Your task to perform on an android device: turn on javascript in the chrome app Image 0: 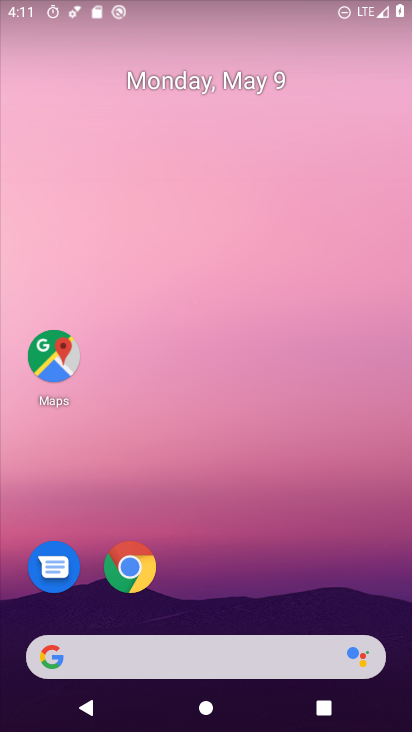
Step 0: drag from (203, 529) to (135, 100)
Your task to perform on an android device: turn on javascript in the chrome app Image 1: 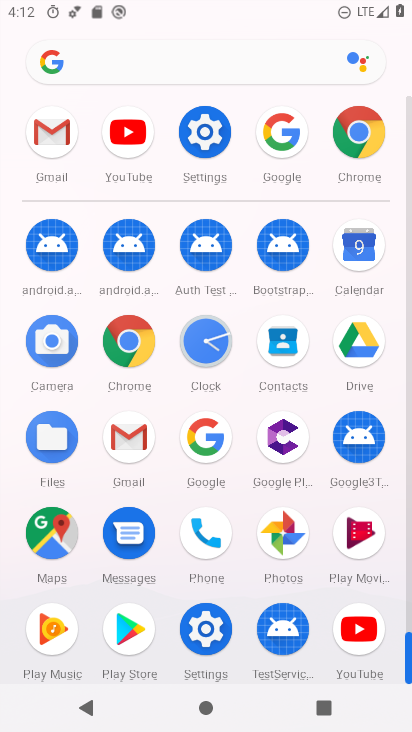
Step 1: click (363, 139)
Your task to perform on an android device: turn on javascript in the chrome app Image 2: 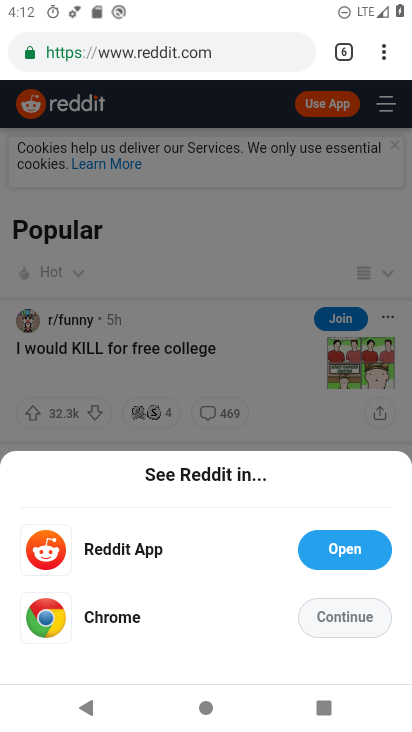
Step 2: click (385, 50)
Your task to perform on an android device: turn on javascript in the chrome app Image 3: 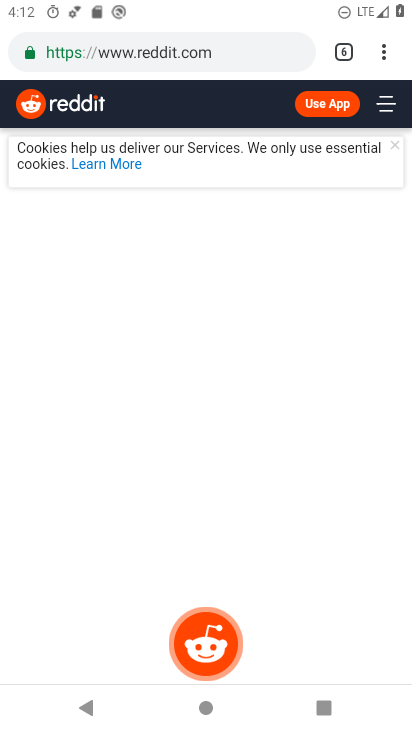
Step 3: click (383, 49)
Your task to perform on an android device: turn on javascript in the chrome app Image 4: 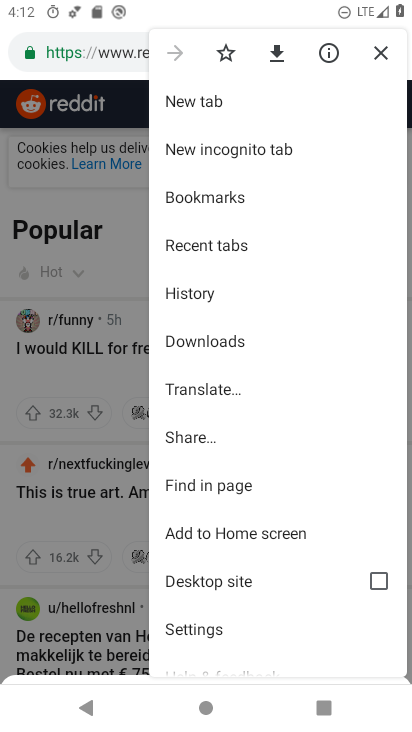
Step 4: click (214, 624)
Your task to perform on an android device: turn on javascript in the chrome app Image 5: 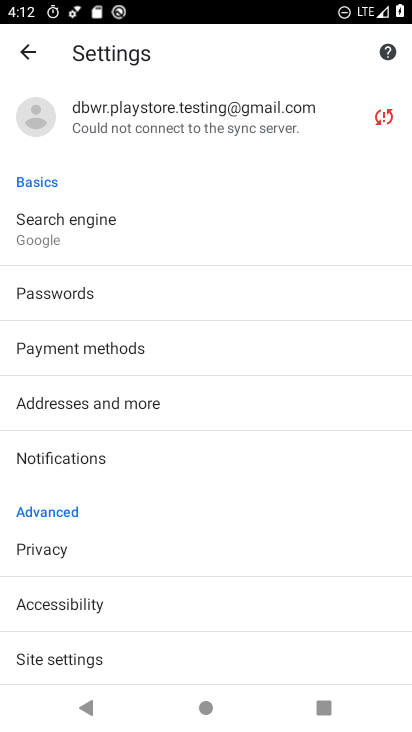
Step 5: click (76, 658)
Your task to perform on an android device: turn on javascript in the chrome app Image 6: 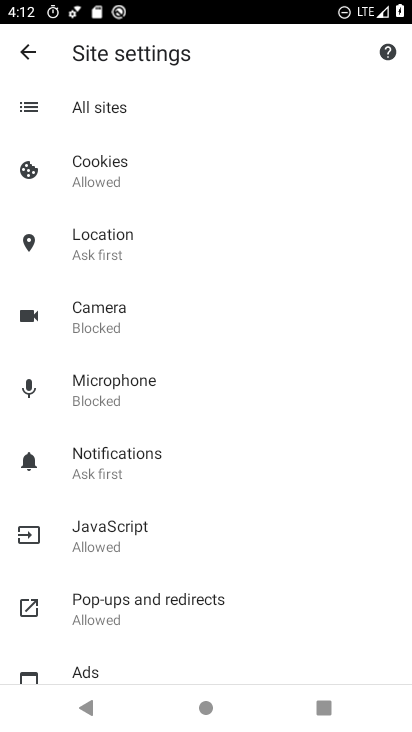
Step 6: click (109, 527)
Your task to perform on an android device: turn on javascript in the chrome app Image 7: 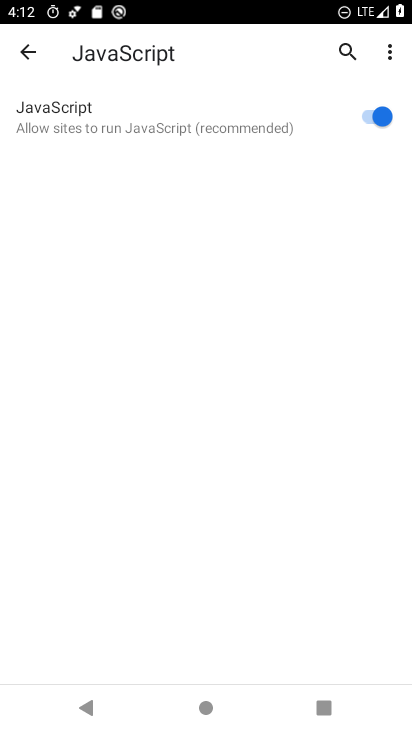
Step 7: task complete